Your task to perform on an android device: When is my next appointment? Image 0: 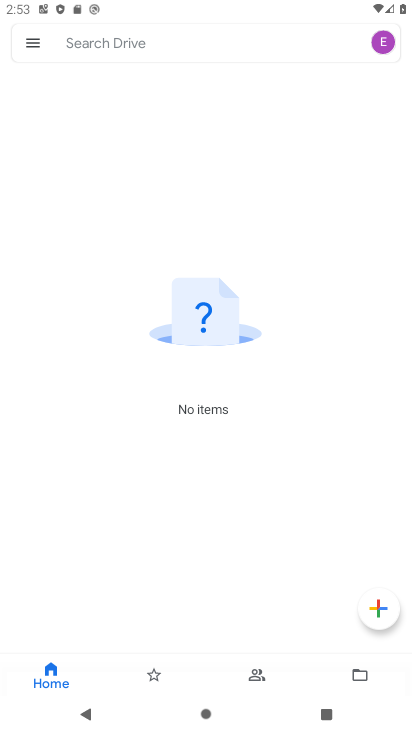
Step 0: press home button
Your task to perform on an android device: When is my next appointment? Image 1: 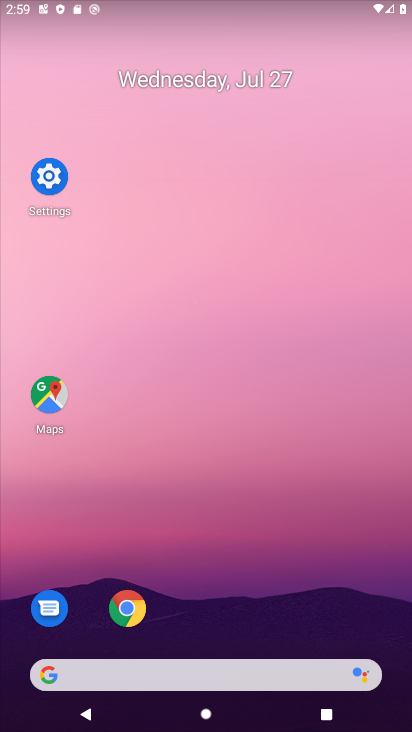
Step 1: drag from (249, 630) to (236, 194)
Your task to perform on an android device: When is my next appointment? Image 2: 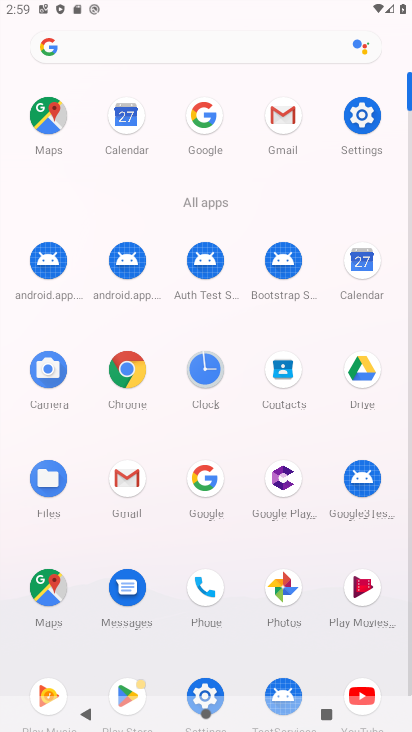
Step 2: click (371, 273)
Your task to perform on an android device: When is my next appointment? Image 3: 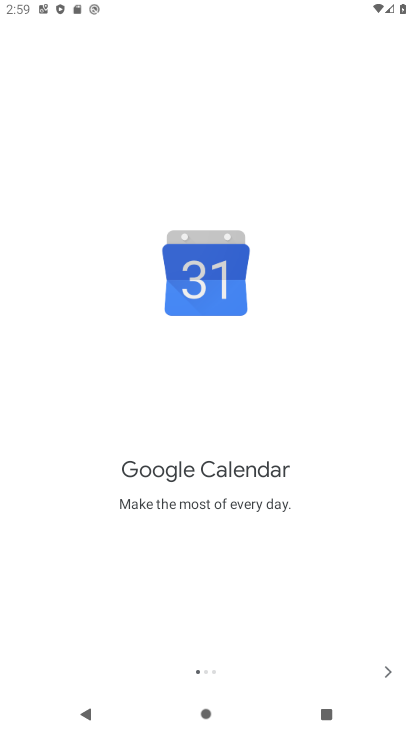
Step 3: click (391, 683)
Your task to perform on an android device: When is my next appointment? Image 4: 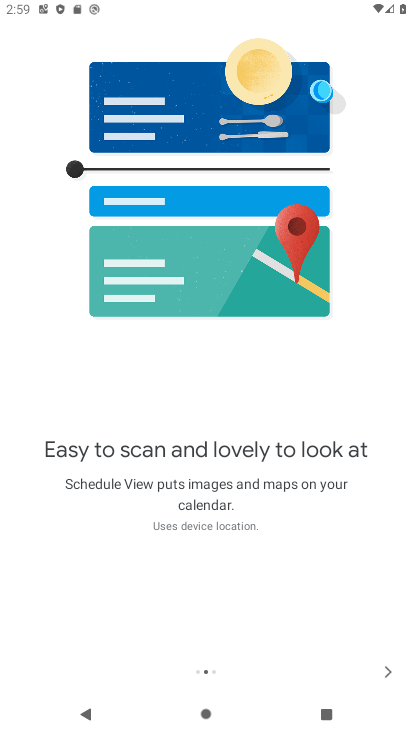
Step 4: click (391, 683)
Your task to perform on an android device: When is my next appointment? Image 5: 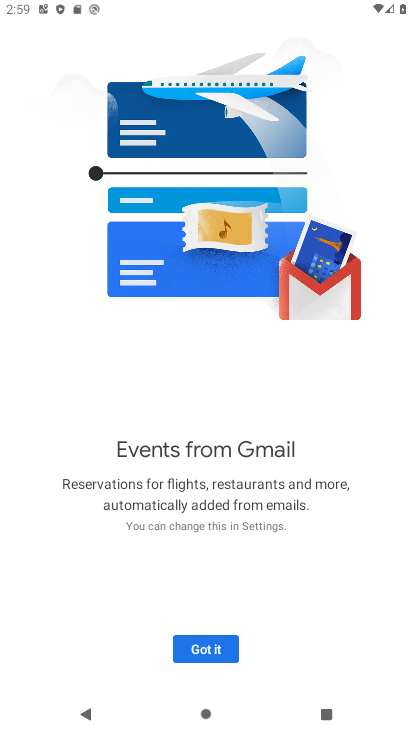
Step 5: click (391, 683)
Your task to perform on an android device: When is my next appointment? Image 6: 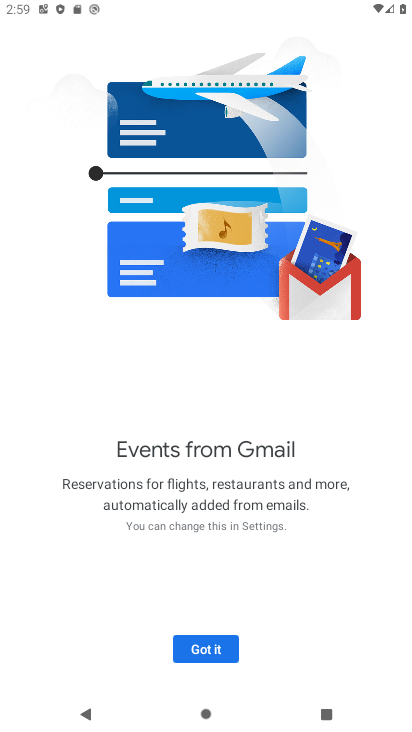
Step 6: click (213, 648)
Your task to perform on an android device: When is my next appointment? Image 7: 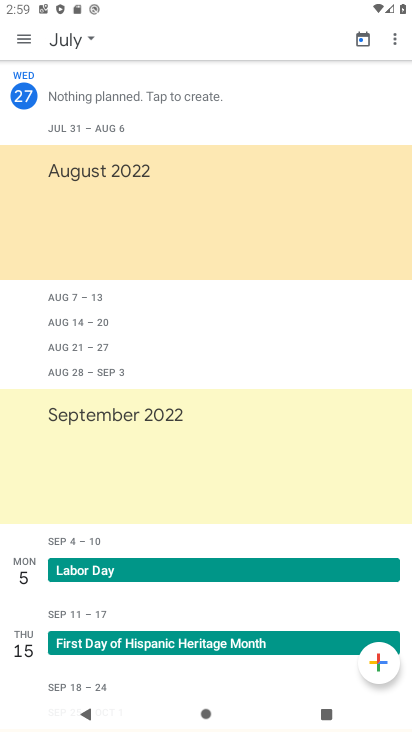
Step 7: click (72, 39)
Your task to perform on an android device: When is my next appointment? Image 8: 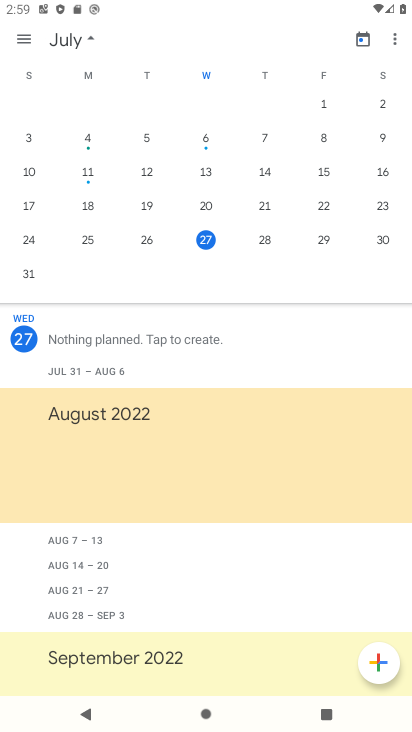
Step 8: click (262, 245)
Your task to perform on an android device: When is my next appointment? Image 9: 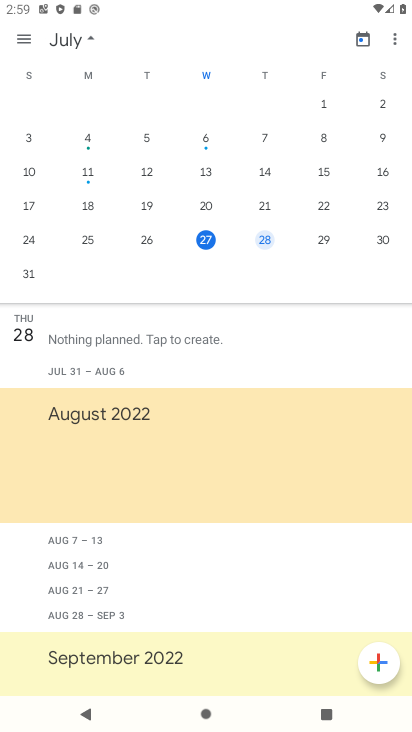
Step 9: click (259, 237)
Your task to perform on an android device: When is my next appointment? Image 10: 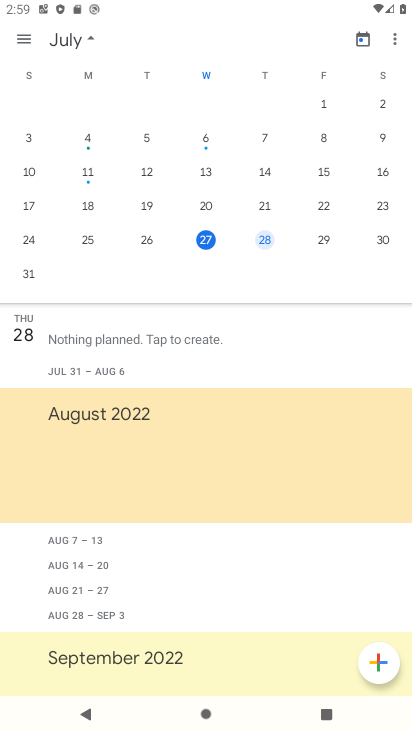
Step 10: click (156, 357)
Your task to perform on an android device: When is my next appointment? Image 11: 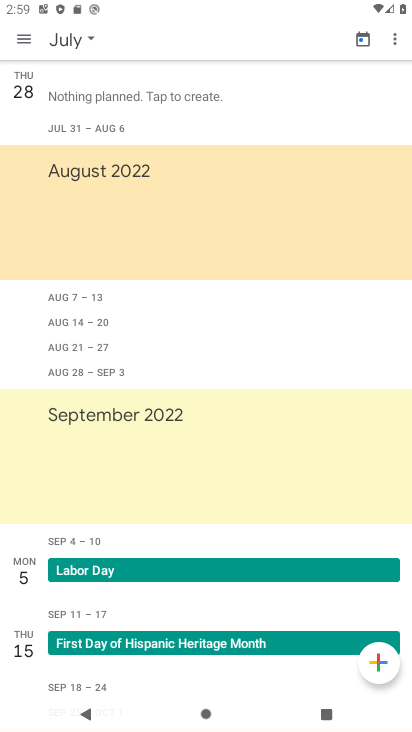
Step 11: task complete